Your task to perform on an android device: check google app version Image 0: 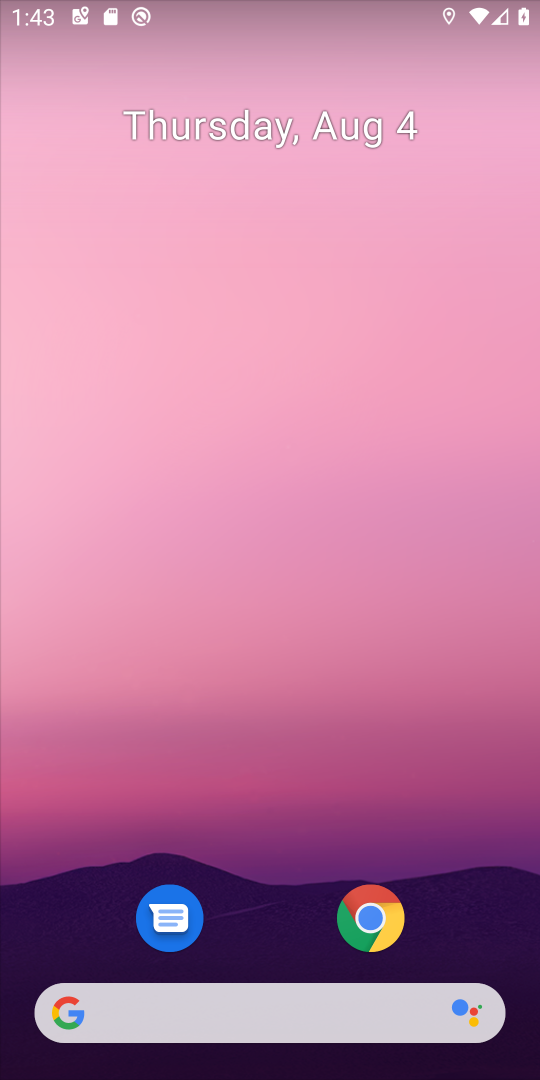
Step 0: drag from (283, 794) to (292, 271)
Your task to perform on an android device: check google app version Image 1: 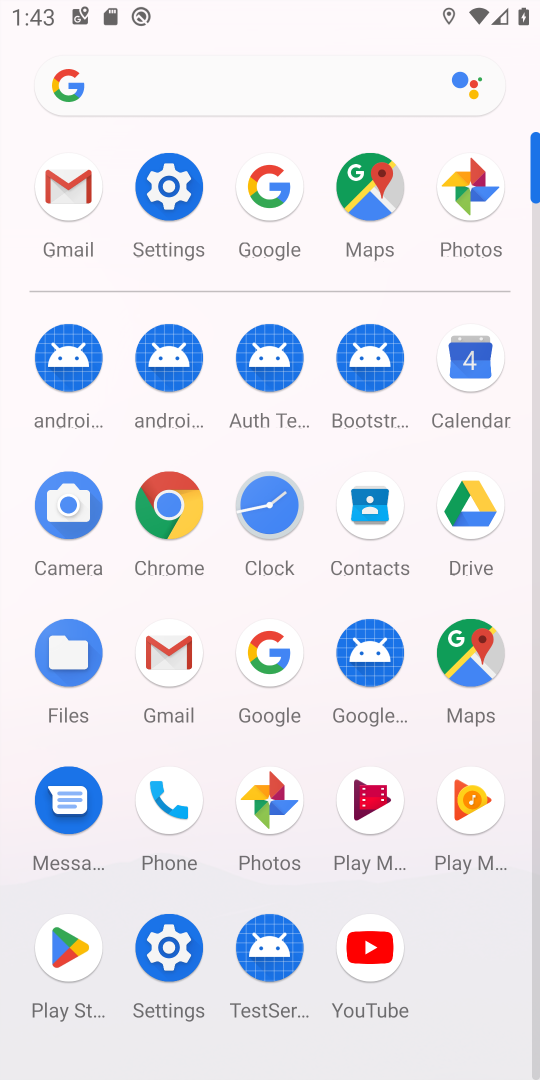
Step 1: click (269, 204)
Your task to perform on an android device: check google app version Image 2: 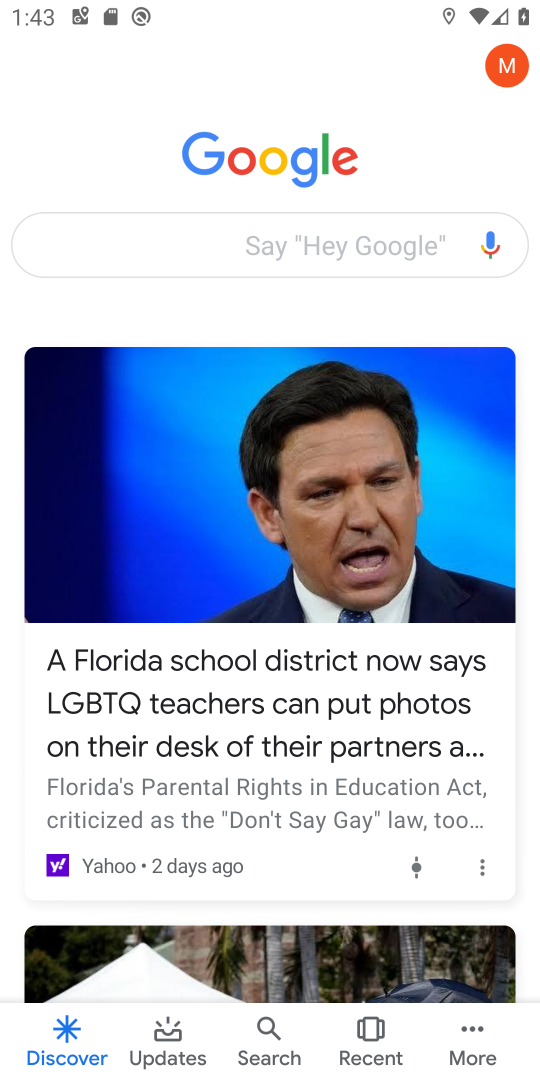
Step 2: click (493, 77)
Your task to perform on an android device: check google app version Image 3: 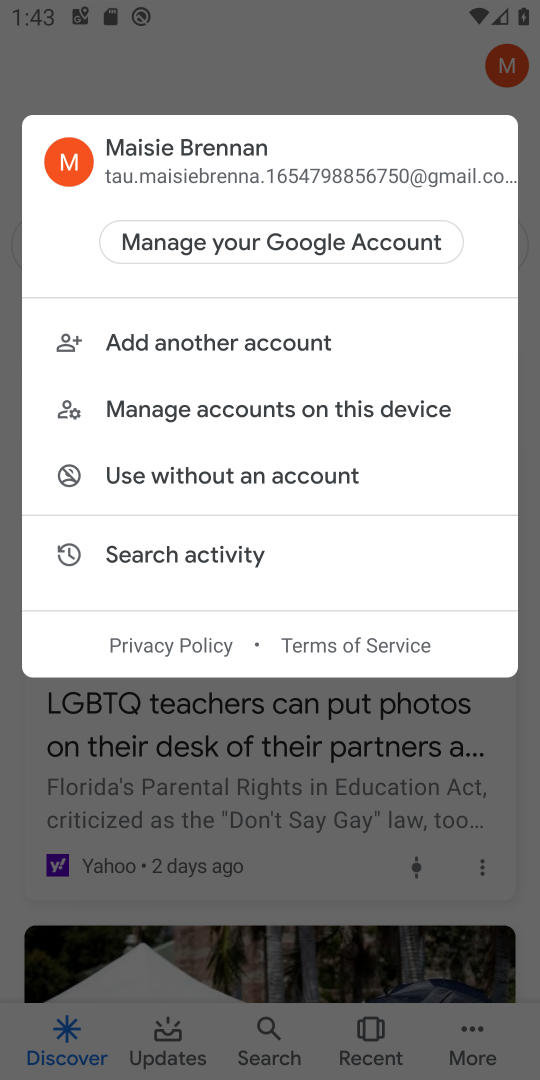
Step 3: click (494, 63)
Your task to perform on an android device: check google app version Image 4: 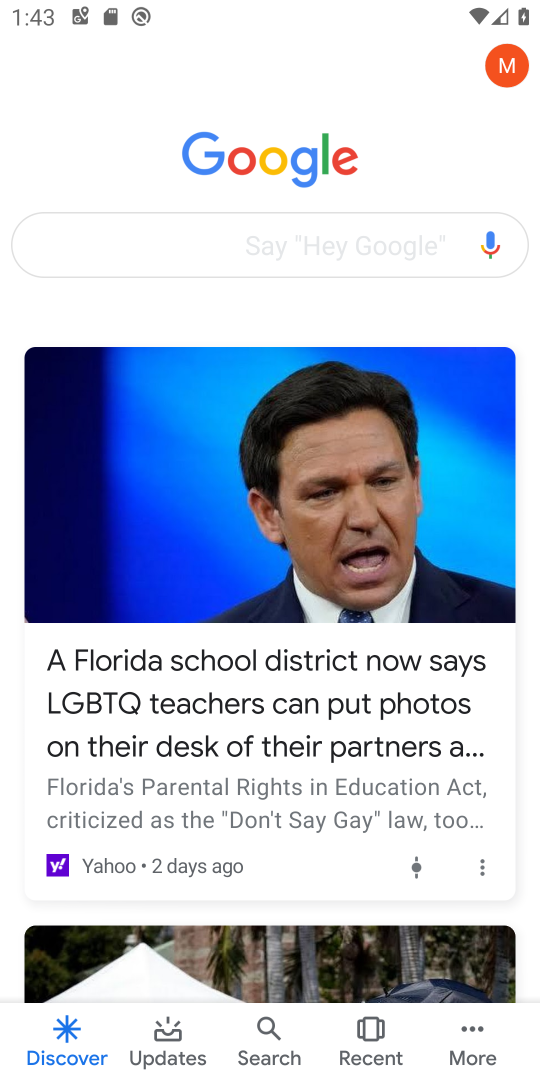
Step 4: click (462, 1036)
Your task to perform on an android device: check google app version Image 5: 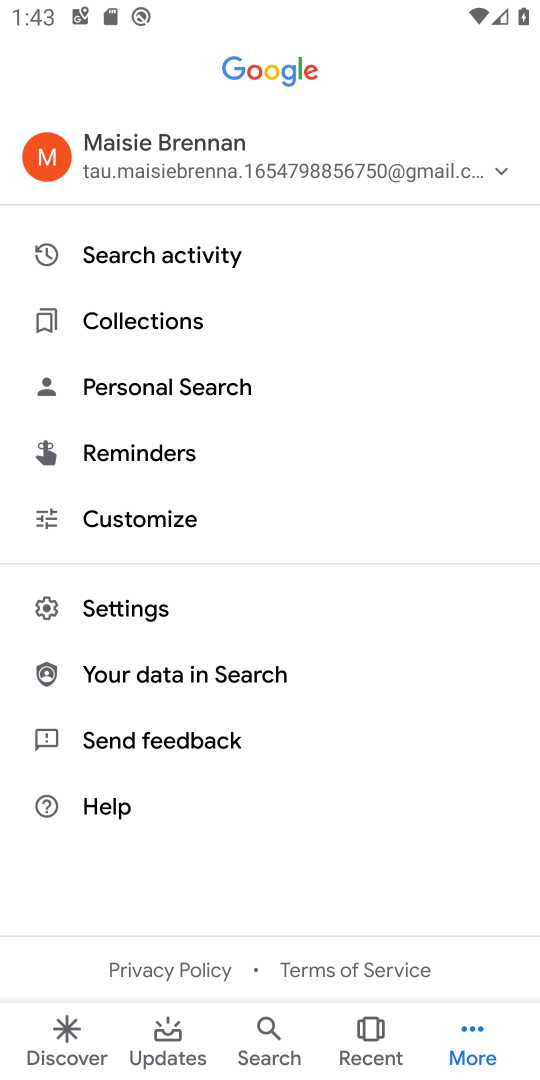
Step 5: click (128, 611)
Your task to perform on an android device: check google app version Image 6: 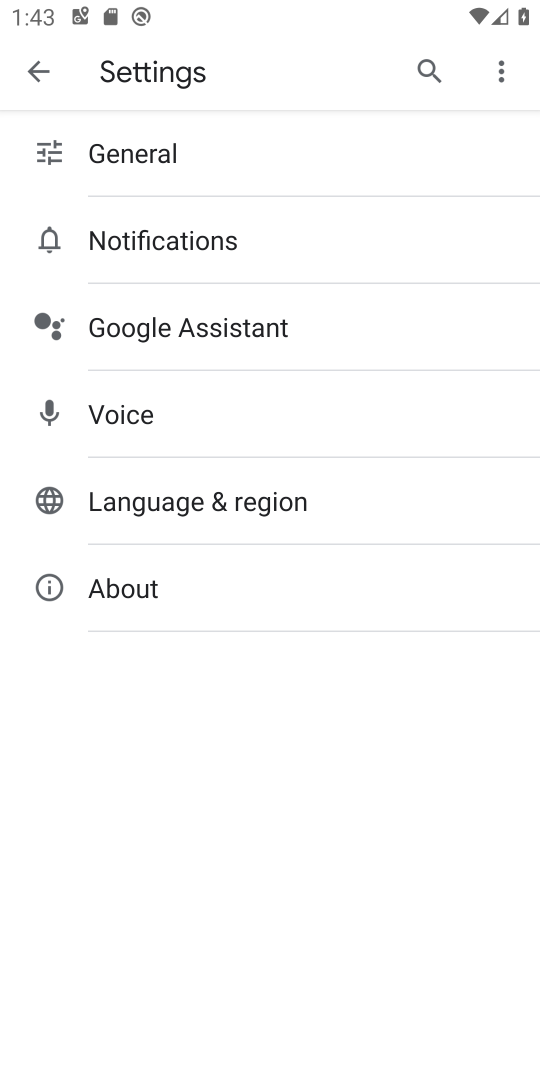
Step 6: click (128, 609)
Your task to perform on an android device: check google app version Image 7: 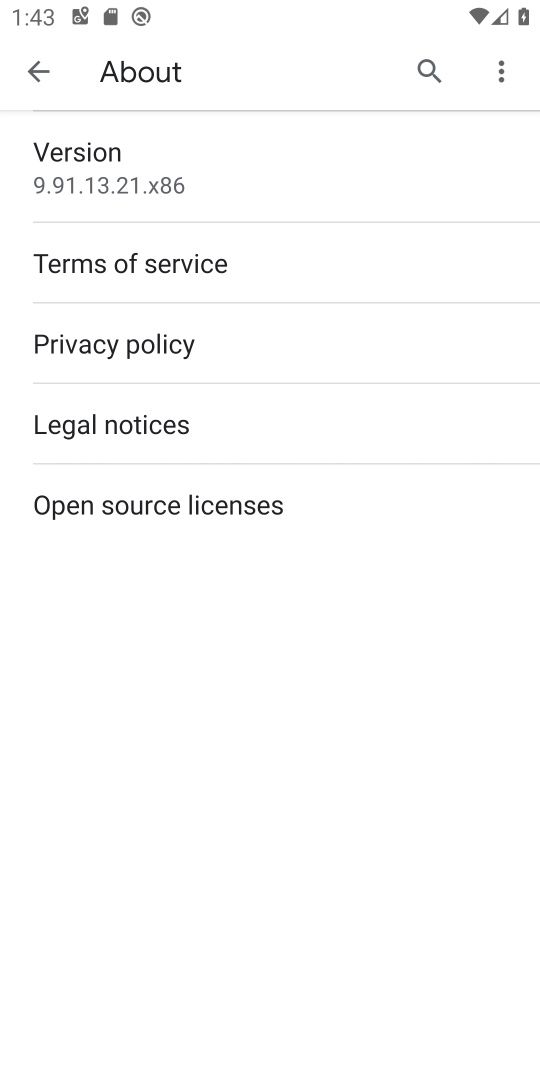
Step 7: click (121, 177)
Your task to perform on an android device: check google app version Image 8: 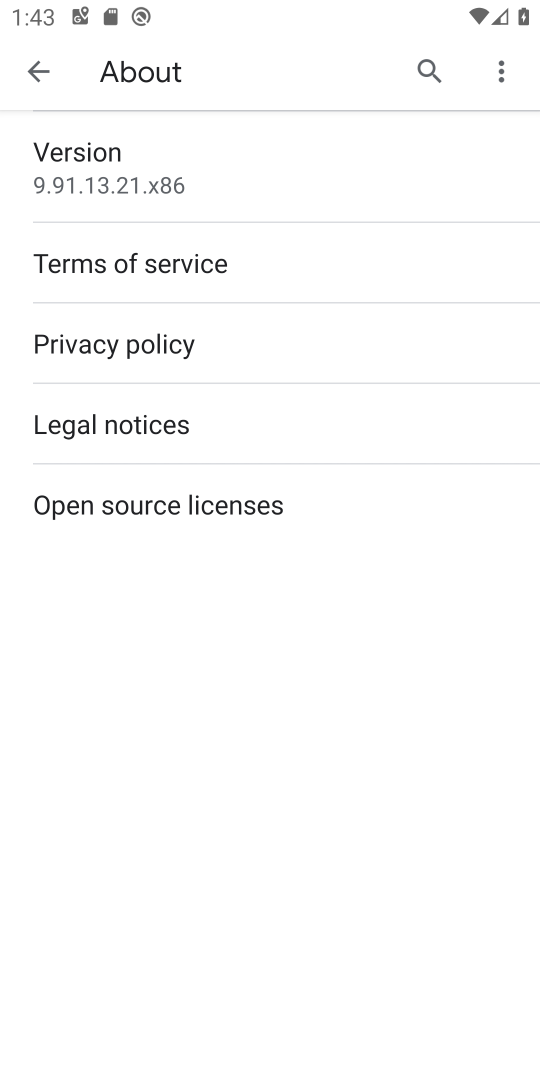
Step 8: task complete